Your task to perform on an android device: check the backup settings in the google photos Image 0: 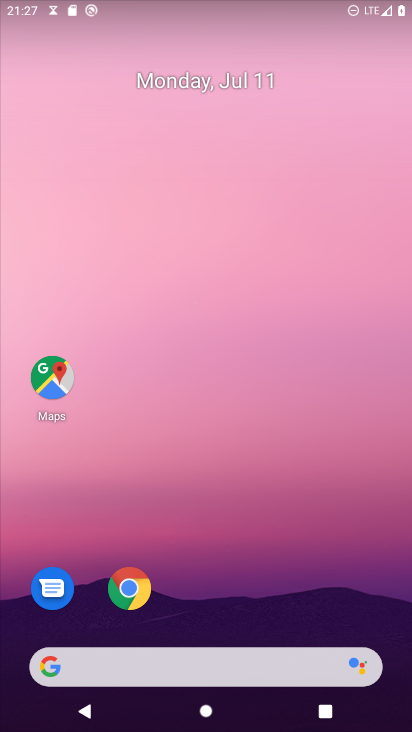
Step 0: press home button
Your task to perform on an android device: check the backup settings in the google photos Image 1: 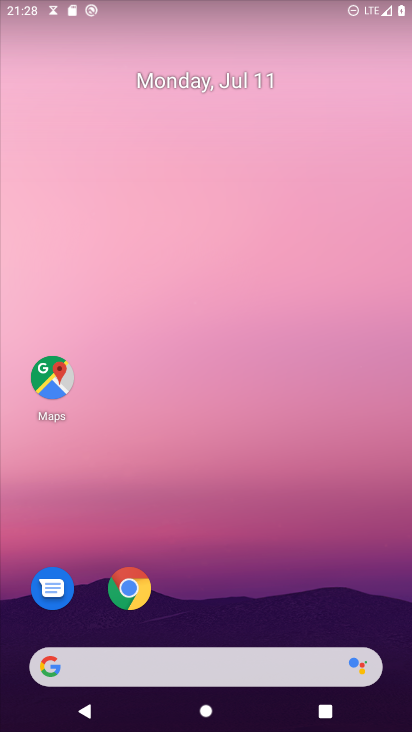
Step 1: drag from (218, 630) to (235, 53)
Your task to perform on an android device: check the backup settings in the google photos Image 2: 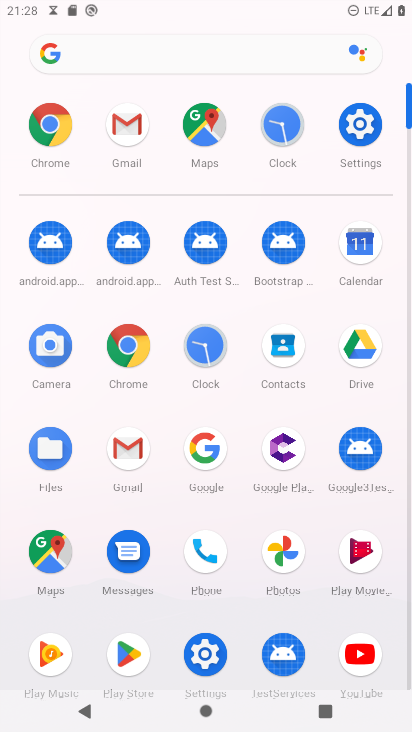
Step 2: click (289, 551)
Your task to perform on an android device: check the backup settings in the google photos Image 3: 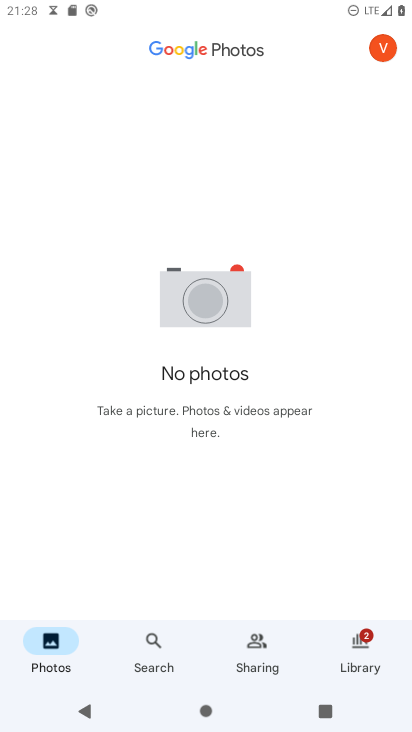
Step 3: click (386, 54)
Your task to perform on an android device: check the backup settings in the google photos Image 4: 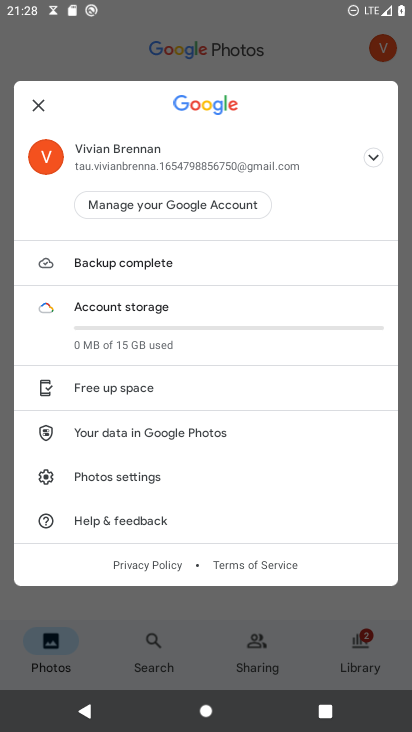
Step 4: click (130, 472)
Your task to perform on an android device: check the backup settings in the google photos Image 5: 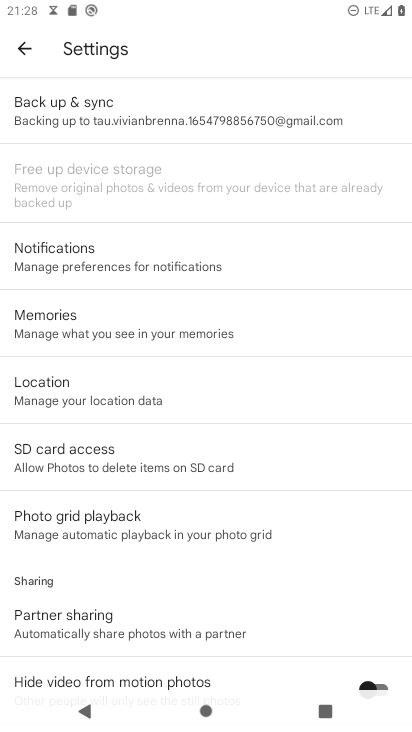
Step 5: click (62, 107)
Your task to perform on an android device: check the backup settings in the google photos Image 6: 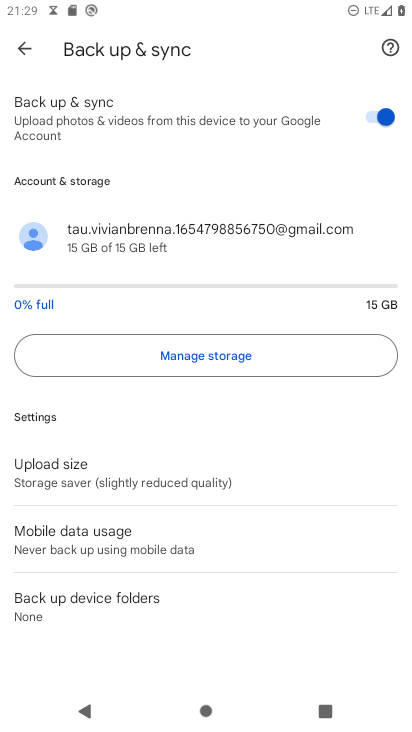
Step 6: click (62, 103)
Your task to perform on an android device: check the backup settings in the google photos Image 7: 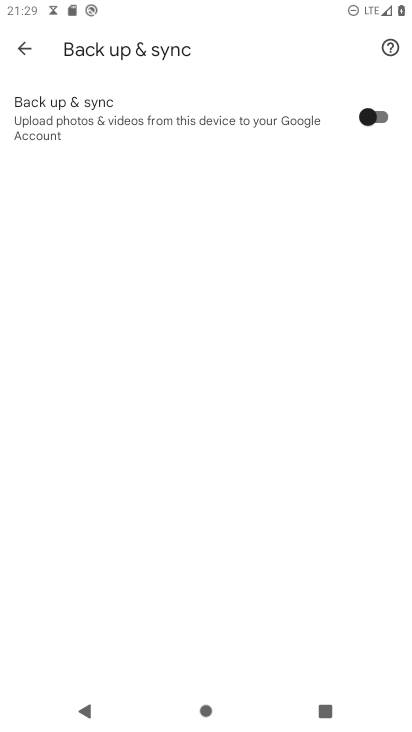
Step 7: click (62, 103)
Your task to perform on an android device: check the backup settings in the google photos Image 8: 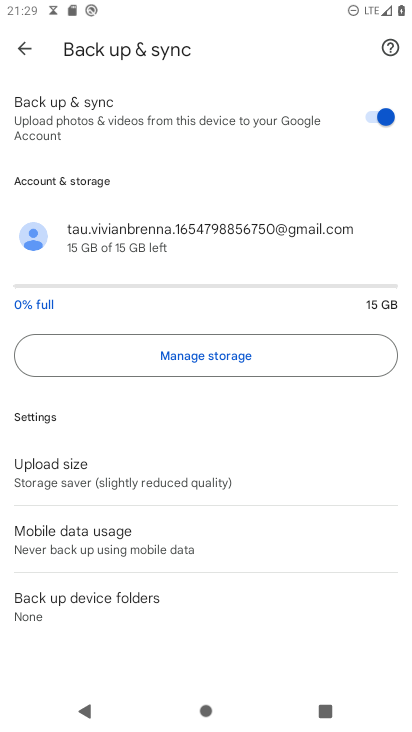
Step 8: task complete